Your task to perform on an android device: allow cookies in the chrome app Image 0: 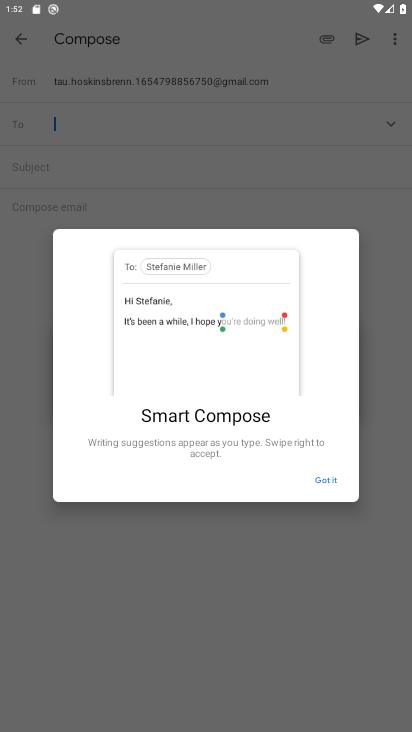
Step 0: press home button
Your task to perform on an android device: allow cookies in the chrome app Image 1: 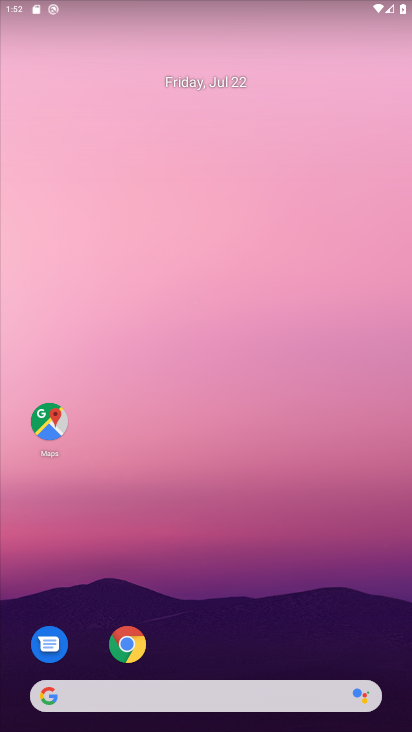
Step 1: click (121, 641)
Your task to perform on an android device: allow cookies in the chrome app Image 2: 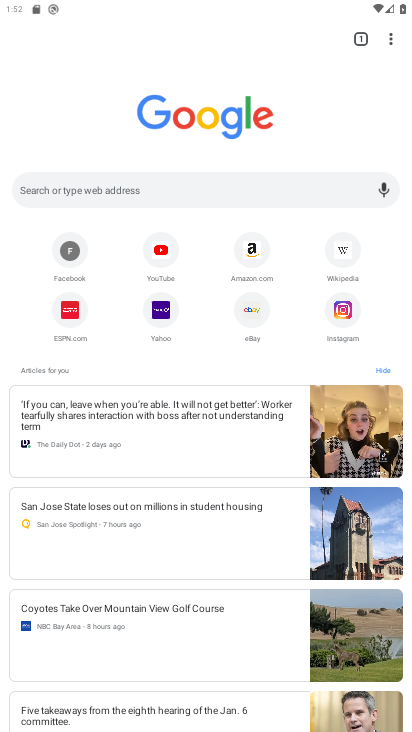
Step 2: click (388, 34)
Your task to perform on an android device: allow cookies in the chrome app Image 3: 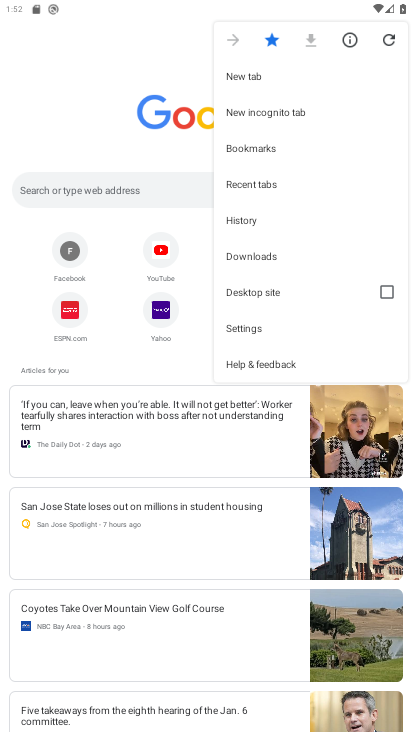
Step 3: click (250, 332)
Your task to perform on an android device: allow cookies in the chrome app Image 4: 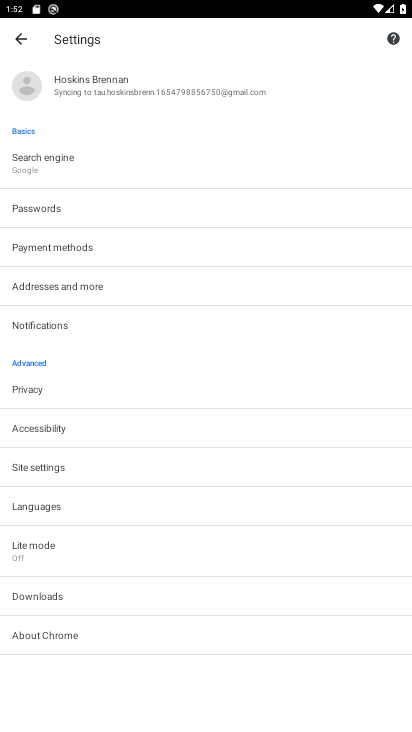
Step 4: click (100, 463)
Your task to perform on an android device: allow cookies in the chrome app Image 5: 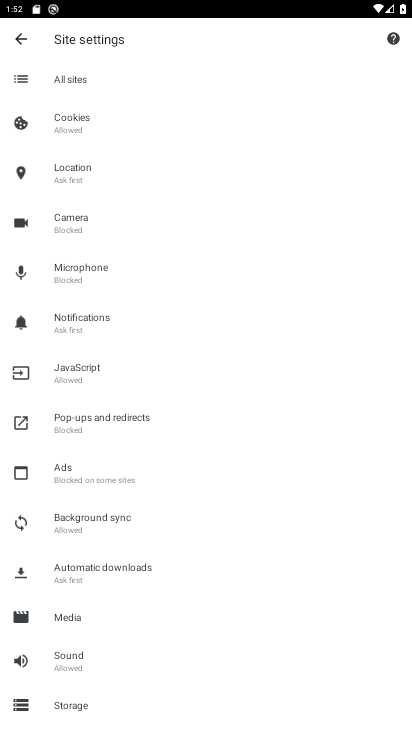
Step 5: click (101, 116)
Your task to perform on an android device: allow cookies in the chrome app Image 6: 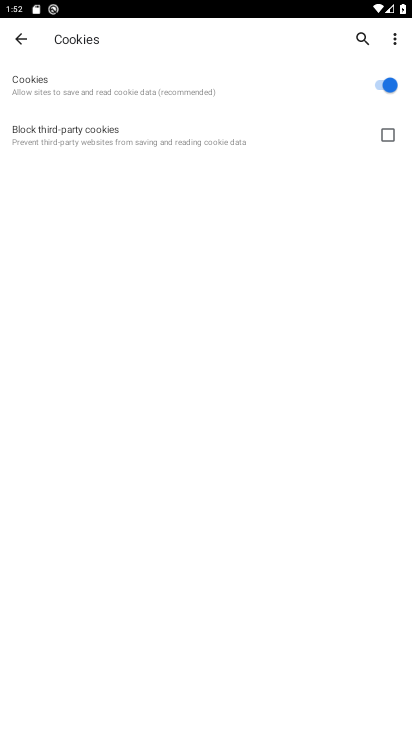
Step 6: task complete